Your task to perform on an android device: turn on improve location accuracy Image 0: 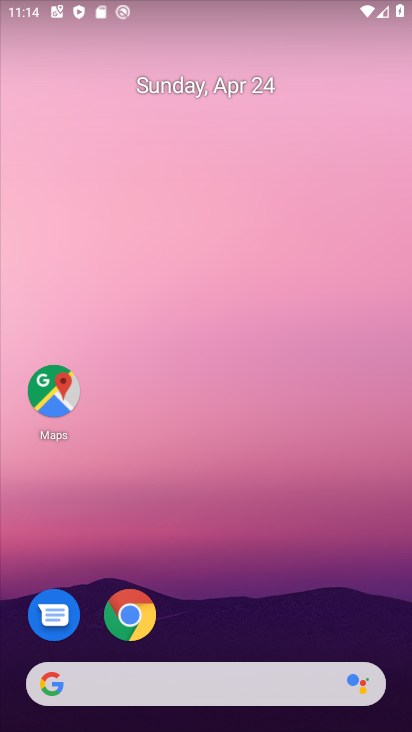
Step 0: drag from (278, 585) to (307, 121)
Your task to perform on an android device: turn on improve location accuracy Image 1: 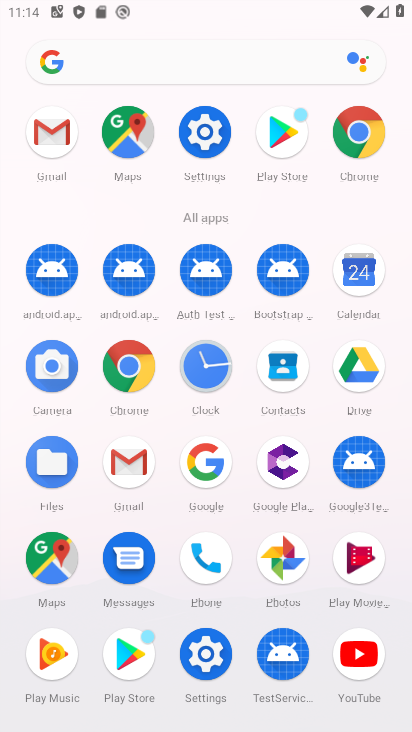
Step 1: click (215, 143)
Your task to perform on an android device: turn on improve location accuracy Image 2: 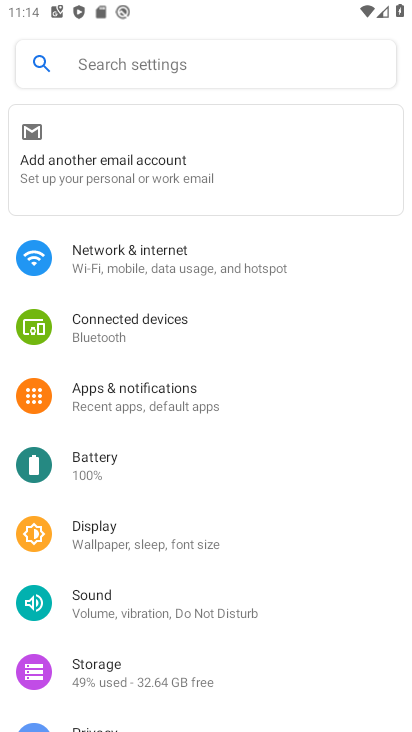
Step 2: drag from (180, 570) to (182, 340)
Your task to perform on an android device: turn on improve location accuracy Image 3: 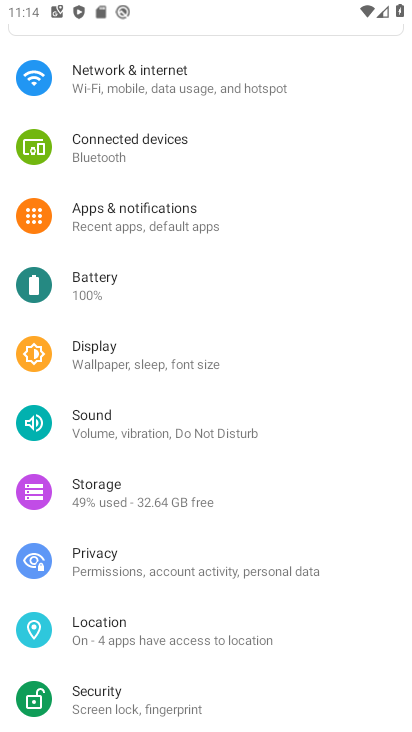
Step 3: click (172, 616)
Your task to perform on an android device: turn on improve location accuracy Image 4: 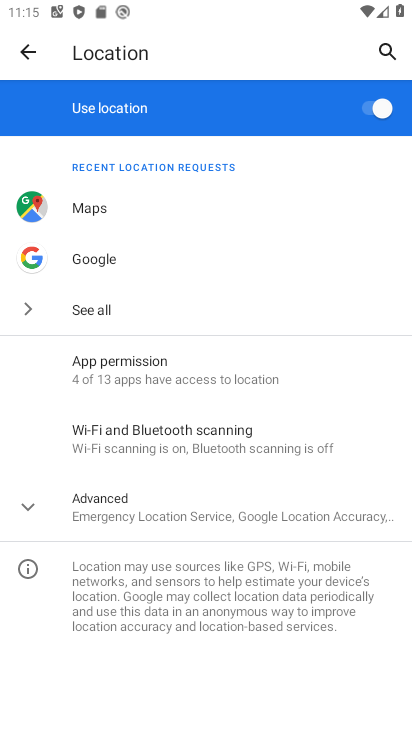
Step 4: click (169, 497)
Your task to perform on an android device: turn on improve location accuracy Image 5: 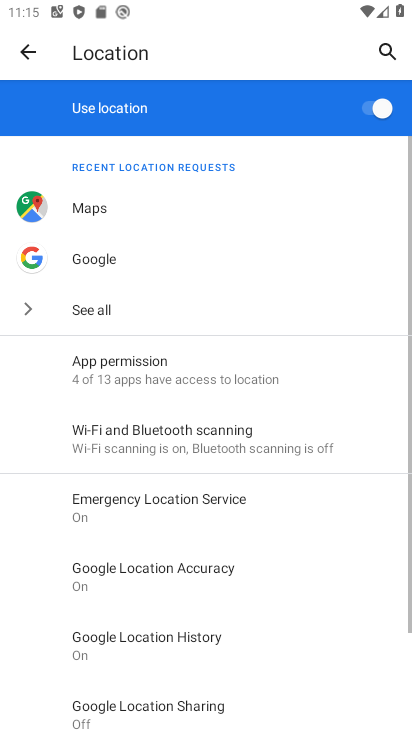
Step 5: task complete